Your task to perform on an android device: Go to Yahoo.com Image 0: 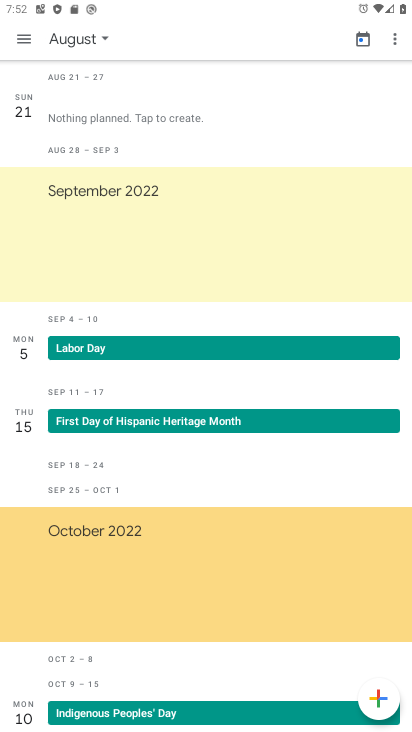
Step 0: press home button
Your task to perform on an android device: Go to Yahoo.com Image 1: 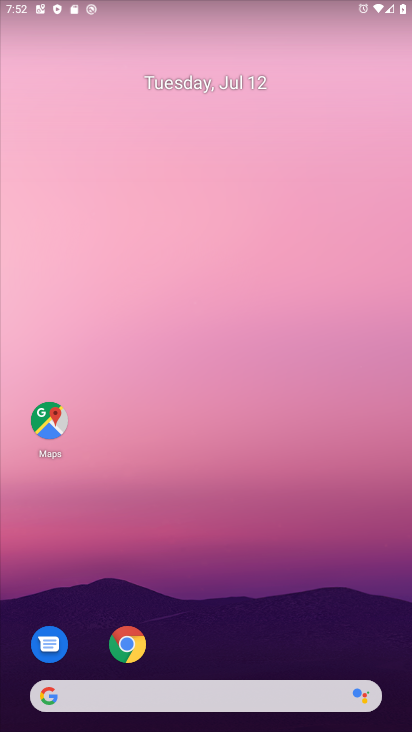
Step 1: drag from (145, 667) to (159, 199)
Your task to perform on an android device: Go to Yahoo.com Image 2: 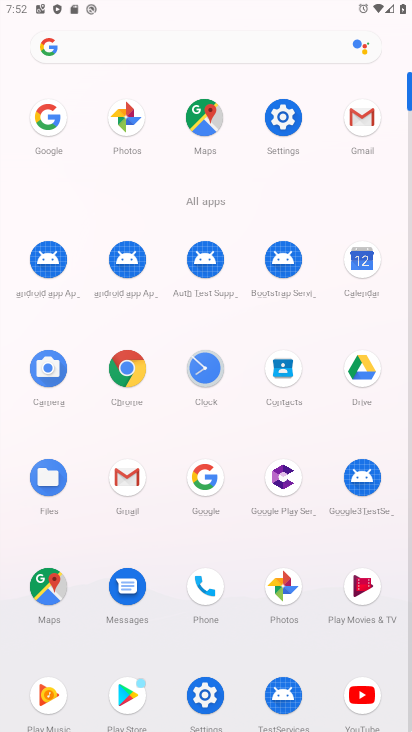
Step 2: click (141, 364)
Your task to perform on an android device: Go to Yahoo.com Image 3: 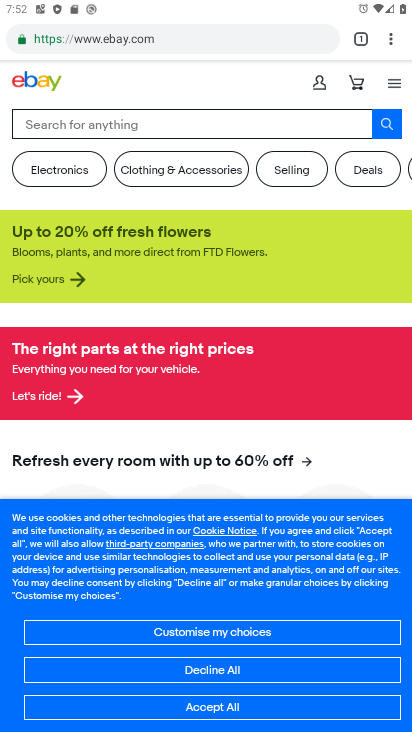
Step 3: click (366, 45)
Your task to perform on an android device: Go to Yahoo.com Image 4: 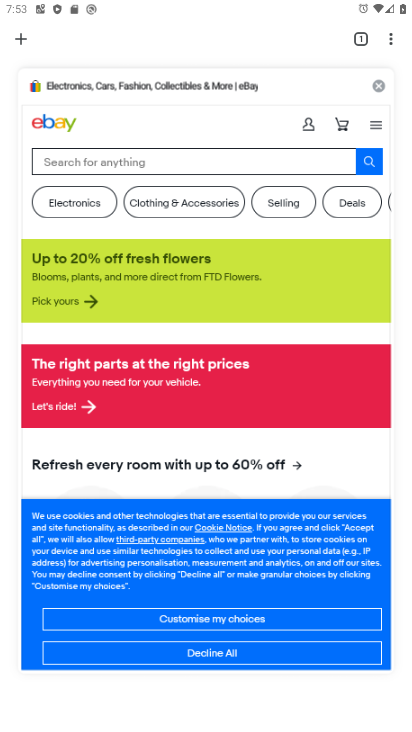
Step 4: click (378, 87)
Your task to perform on an android device: Go to Yahoo.com Image 5: 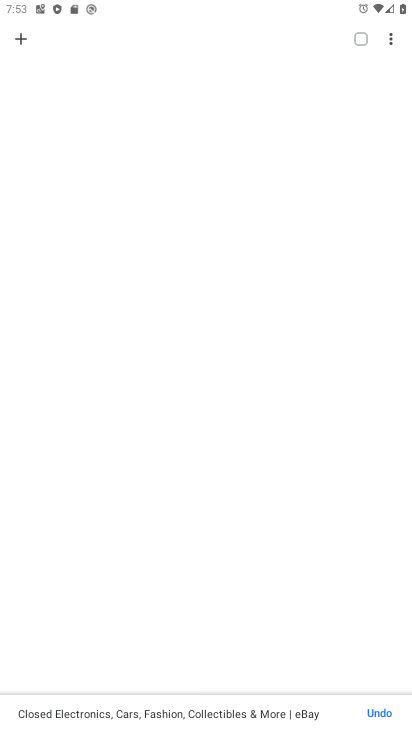
Step 5: click (24, 37)
Your task to perform on an android device: Go to Yahoo.com Image 6: 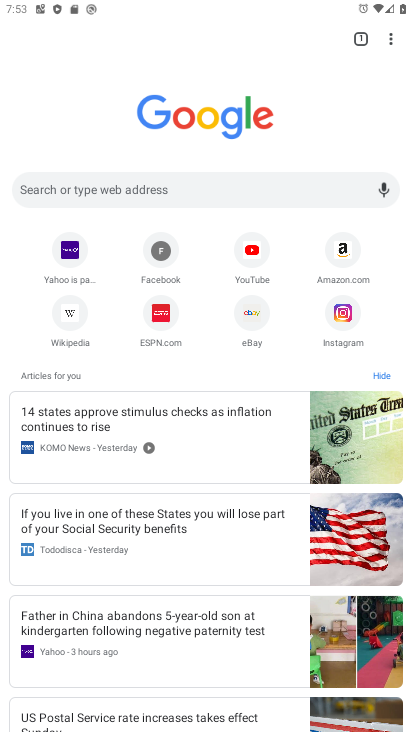
Step 6: click (70, 251)
Your task to perform on an android device: Go to Yahoo.com Image 7: 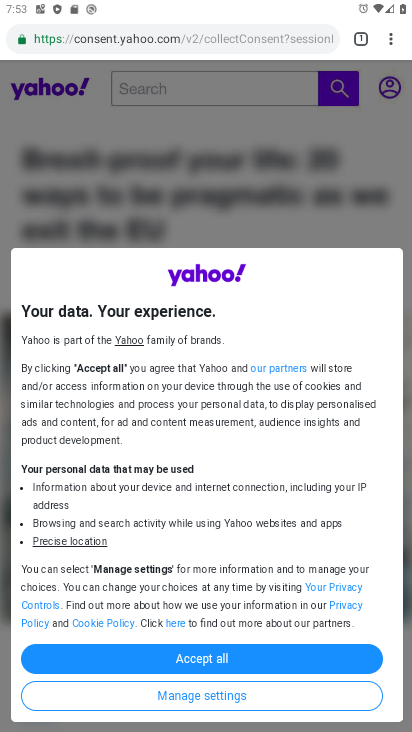
Step 7: task complete